Your task to perform on an android device: open wifi settings Image 0: 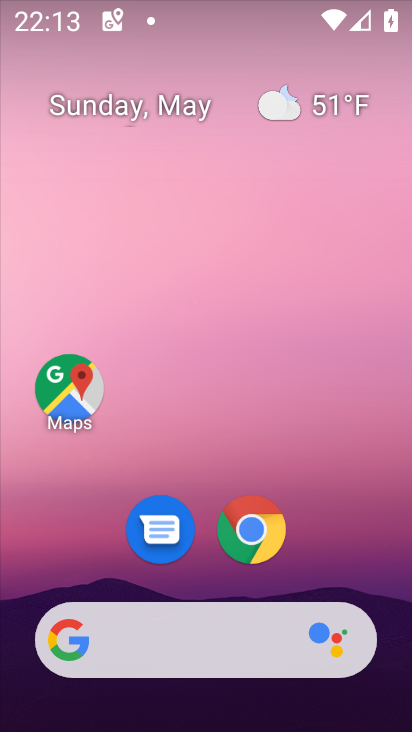
Step 0: drag from (344, 649) to (299, 118)
Your task to perform on an android device: open wifi settings Image 1: 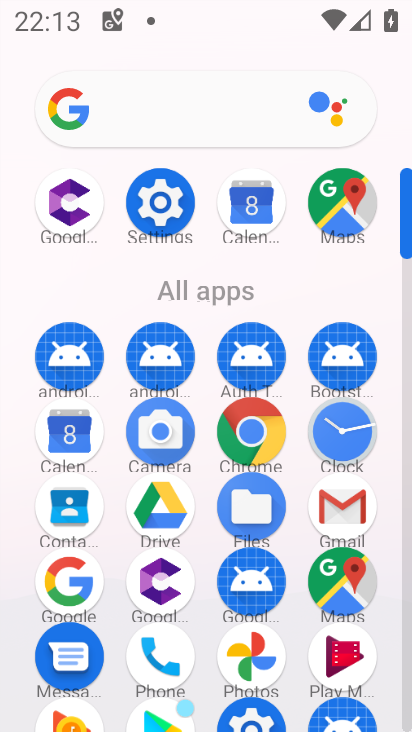
Step 1: drag from (295, 679) to (268, 421)
Your task to perform on an android device: open wifi settings Image 2: 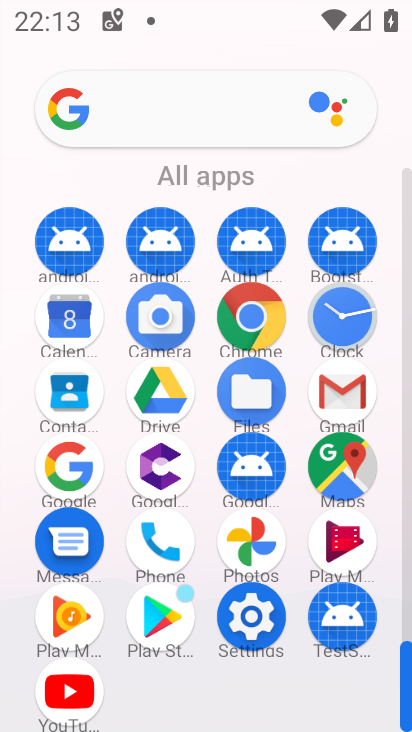
Step 2: click (254, 627)
Your task to perform on an android device: open wifi settings Image 3: 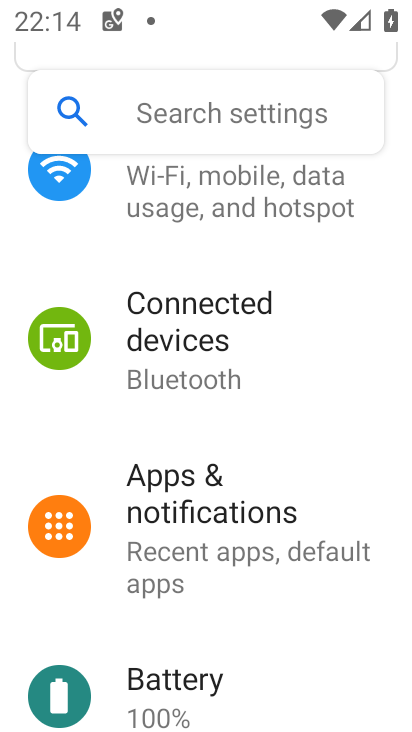
Step 3: drag from (237, 347) to (269, 644)
Your task to perform on an android device: open wifi settings Image 4: 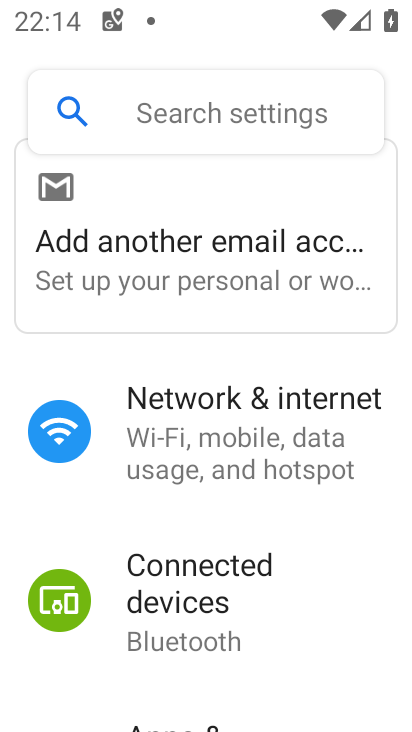
Step 4: click (262, 427)
Your task to perform on an android device: open wifi settings Image 5: 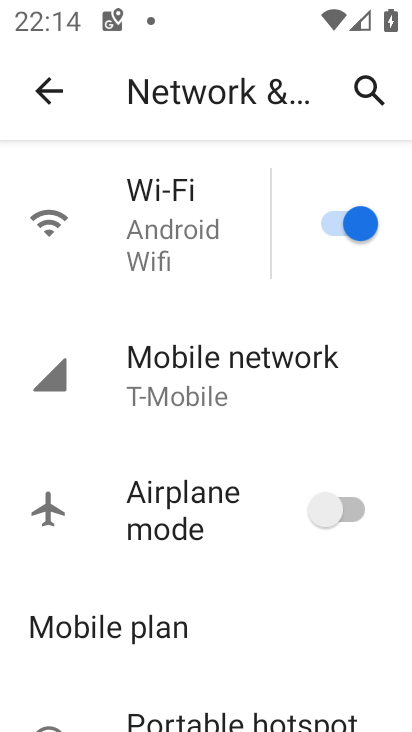
Step 5: click (187, 241)
Your task to perform on an android device: open wifi settings Image 6: 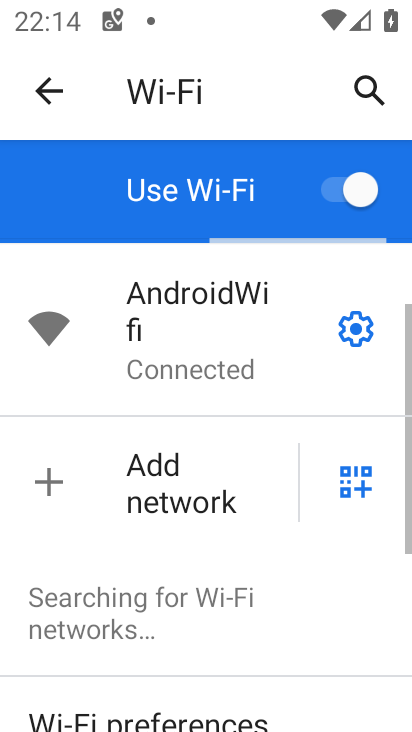
Step 6: task complete